Your task to perform on an android device: turn on improve location accuracy Image 0: 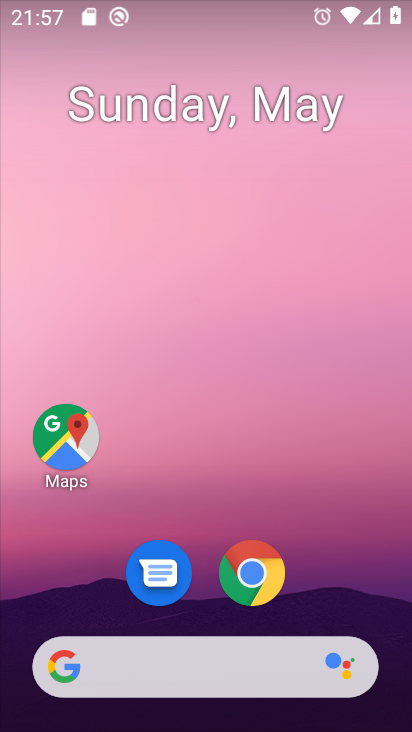
Step 0: drag from (218, 512) to (211, 29)
Your task to perform on an android device: turn on improve location accuracy Image 1: 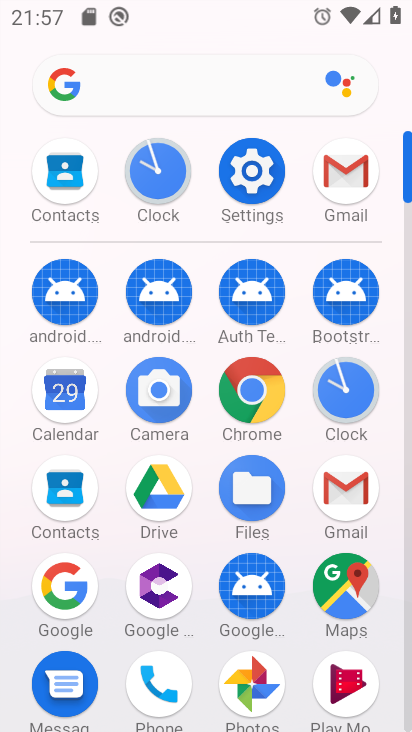
Step 1: click (242, 163)
Your task to perform on an android device: turn on improve location accuracy Image 2: 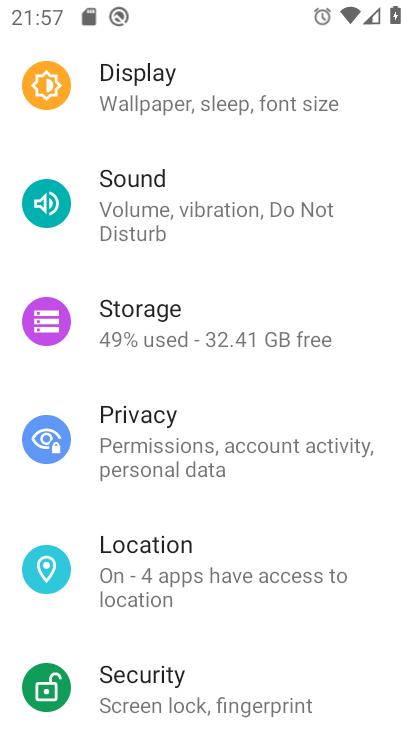
Step 2: click (190, 560)
Your task to perform on an android device: turn on improve location accuracy Image 3: 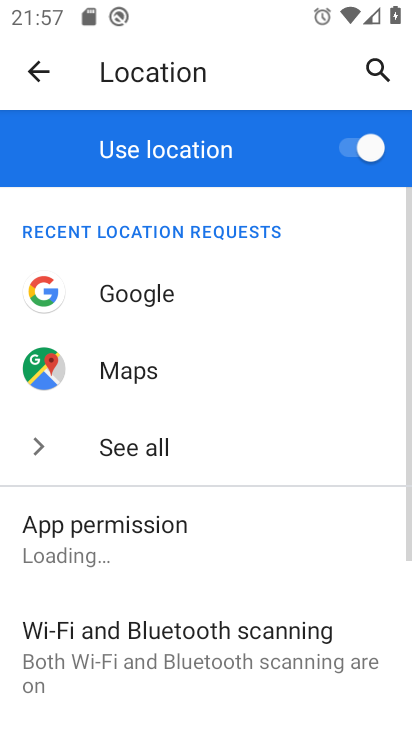
Step 3: drag from (258, 561) to (248, 155)
Your task to perform on an android device: turn on improve location accuracy Image 4: 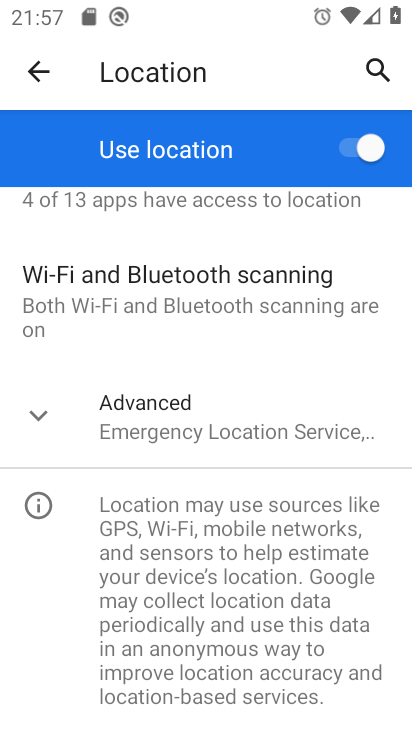
Step 4: click (37, 411)
Your task to perform on an android device: turn on improve location accuracy Image 5: 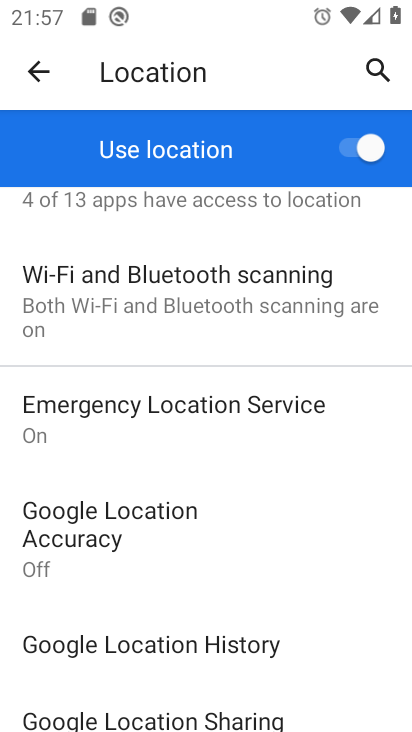
Step 5: click (179, 544)
Your task to perform on an android device: turn on improve location accuracy Image 6: 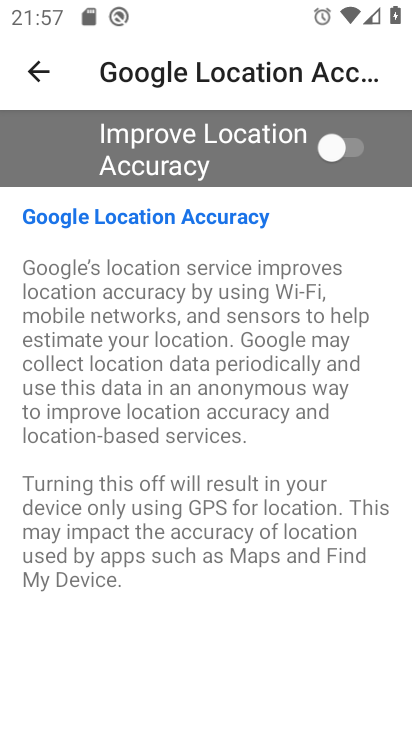
Step 6: click (347, 139)
Your task to perform on an android device: turn on improve location accuracy Image 7: 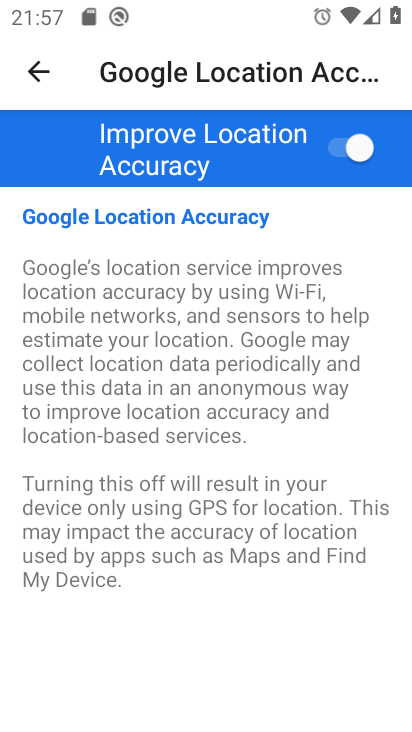
Step 7: task complete